Your task to perform on an android device: change alarm snooze length Image 0: 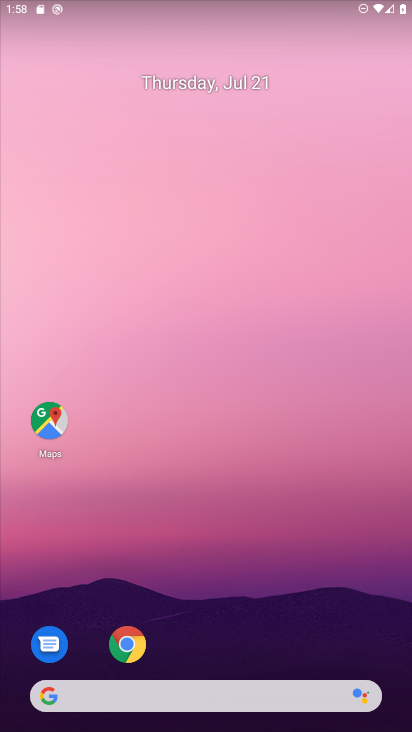
Step 0: drag from (240, 649) to (264, 112)
Your task to perform on an android device: change alarm snooze length Image 1: 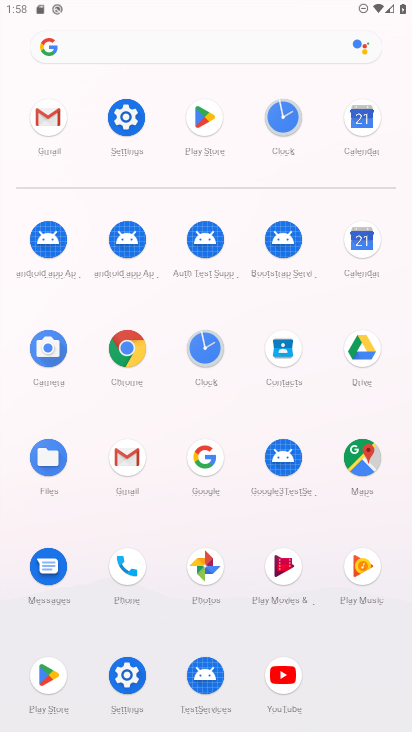
Step 1: click (200, 344)
Your task to perform on an android device: change alarm snooze length Image 2: 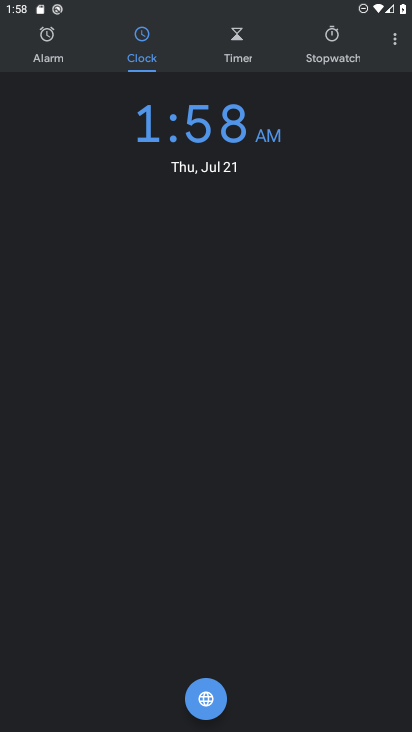
Step 2: click (391, 38)
Your task to perform on an android device: change alarm snooze length Image 3: 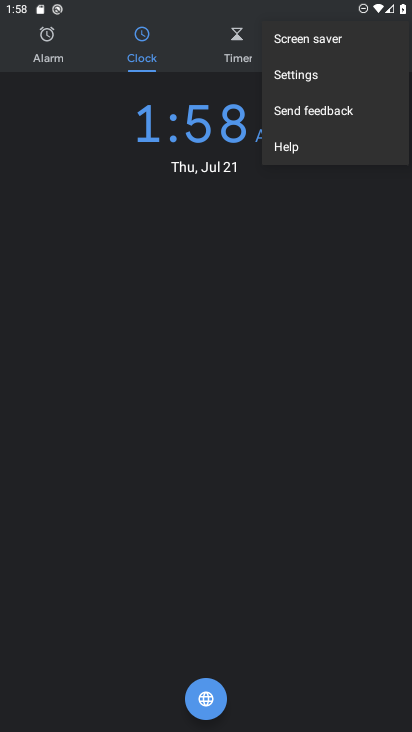
Step 3: click (308, 77)
Your task to perform on an android device: change alarm snooze length Image 4: 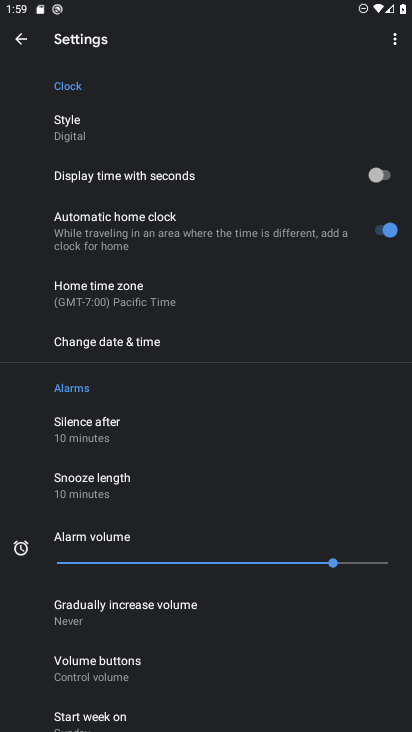
Step 4: click (113, 484)
Your task to perform on an android device: change alarm snooze length Image 5: 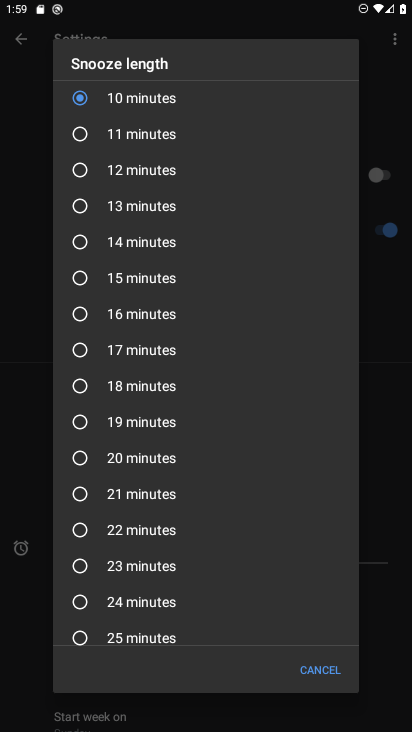
Step 5: click (121, 462)
Your task to perform on an android device: change alarm snooze length Image 6: 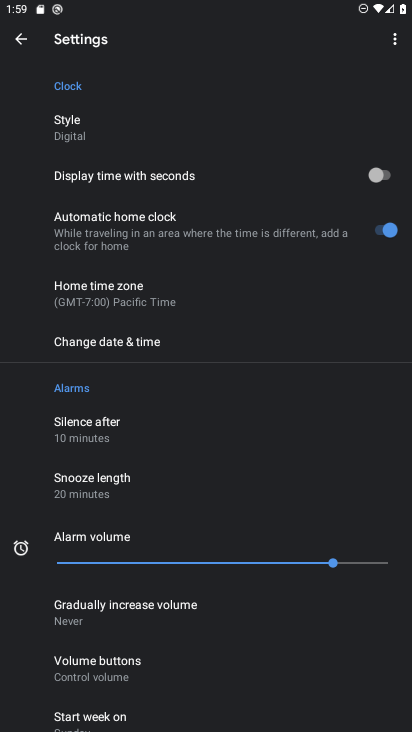
Step 6: task complete